Your task to perform on an android device: turn off smart reply in the gmail app Image 0: 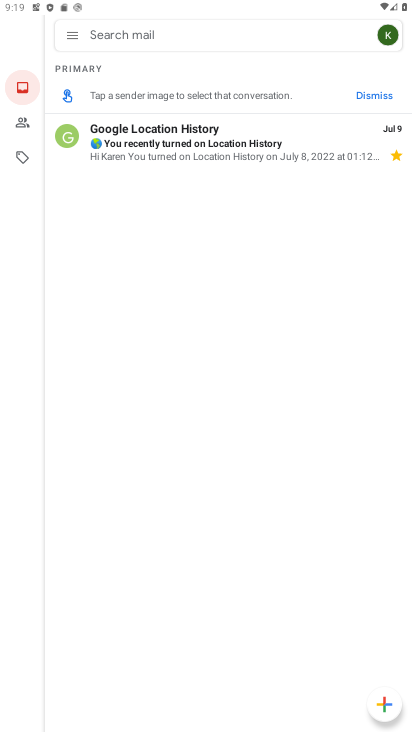
Step 0: click (74, 35)
Your task to perform on an android device: turn off smart reply in the gmail app Image 1: 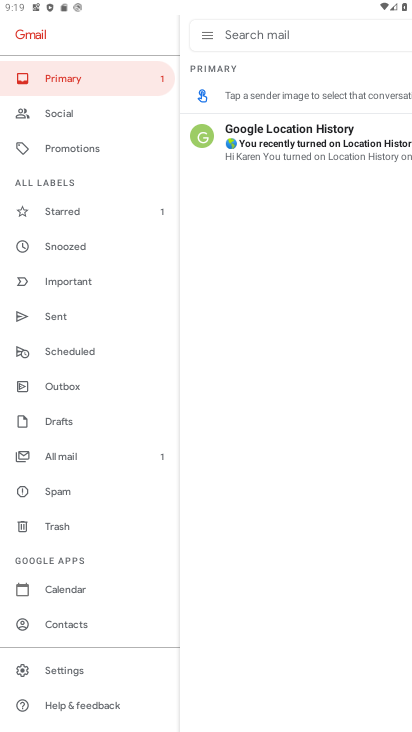
Step 1: click (68, 672)
Your task to perform on an android device: turn off smart reply in the gmail app Image 2: 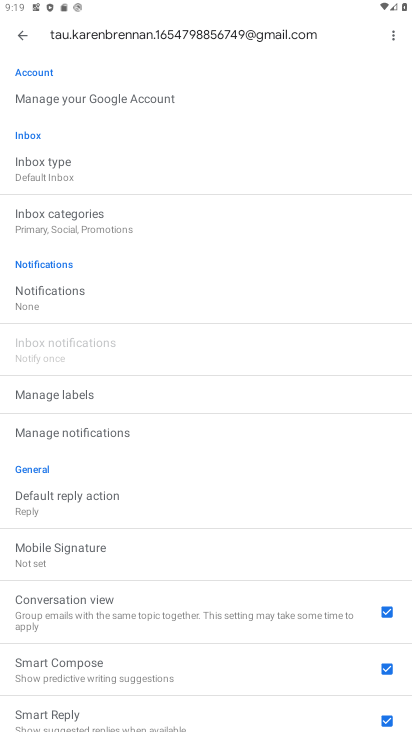
Step 2: drag from (193, 698) to (190, 455)
Your task to perform on an android device: turn off smart reply in the gmail app Image 3: 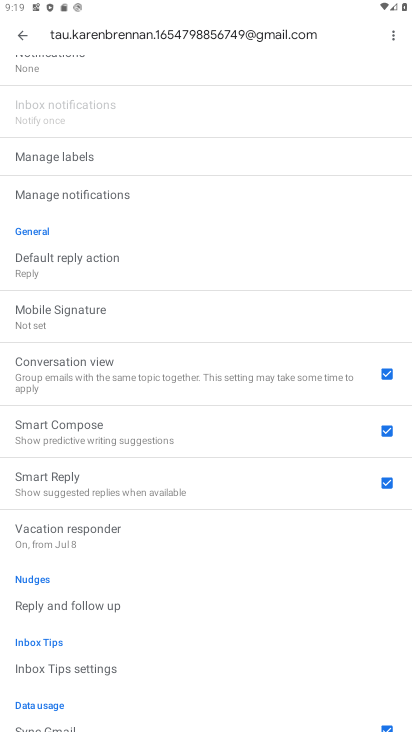
Step 3: drag from (161, 687) to (173, 476)
Your task to perform on an android device: turn off smart reply in the gmail app Image 4: 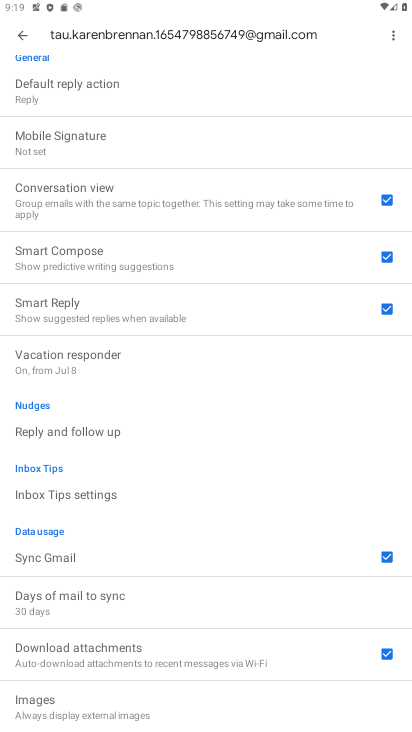
Step 4: click (383, 305)
Your task to perform on an android device: turn off smart reply in the gmail app Image 5: 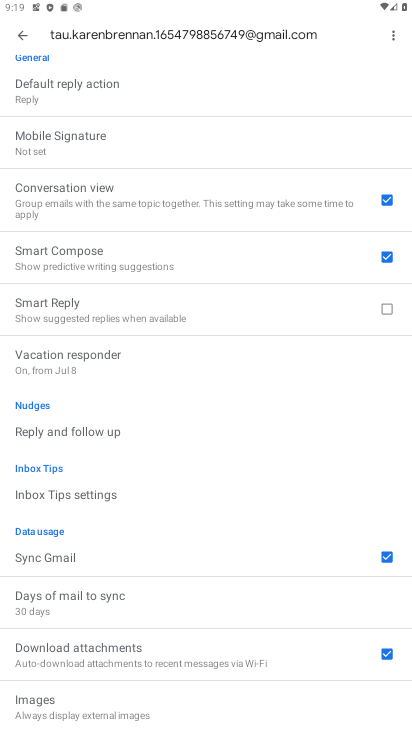
Step 5: task complete